Your task to perform on an android device: change the upload size in google photos Image 0: 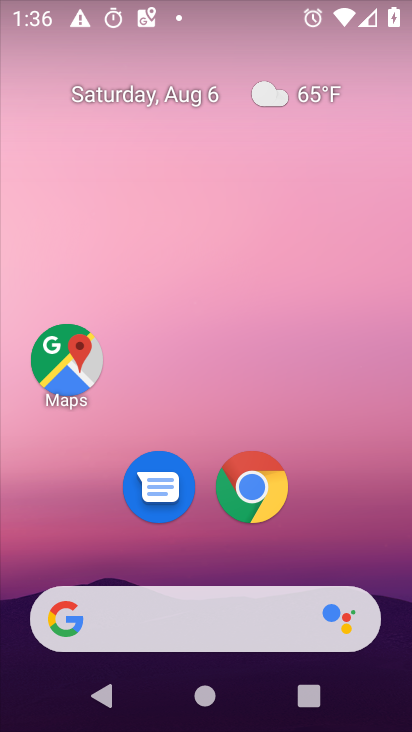
Step 0: drag from (219, 561) to (248, 22)
Your task to perform on an android device: change the upload size in google photos Image 1: 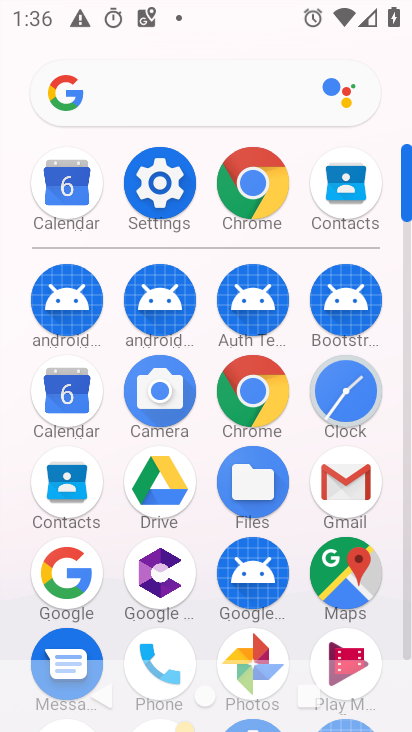
Step 1: click (262, 635)
Your task to perform on an android device: change the upload size in google photos Image 2: 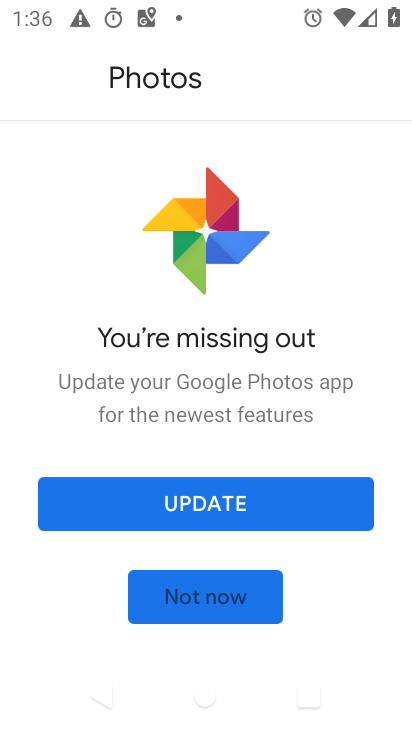
Step 2: click (202, 608)
Your task to perform on an android device: change the upload size in google photos Image 3: 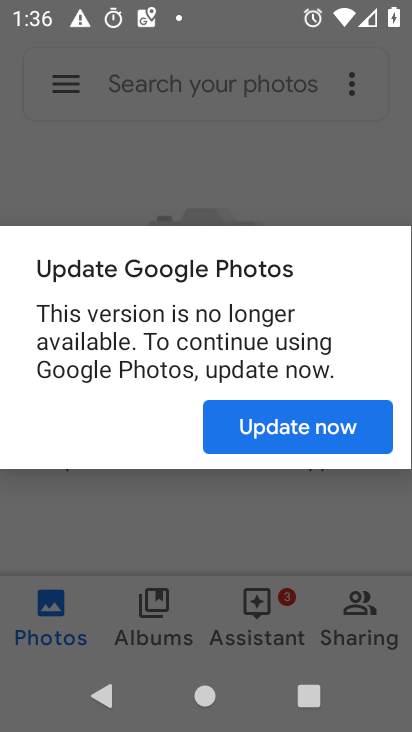
Step 3: click (301, 426)
Your task to perform on an android device: change the upload size in google photos Image 4: 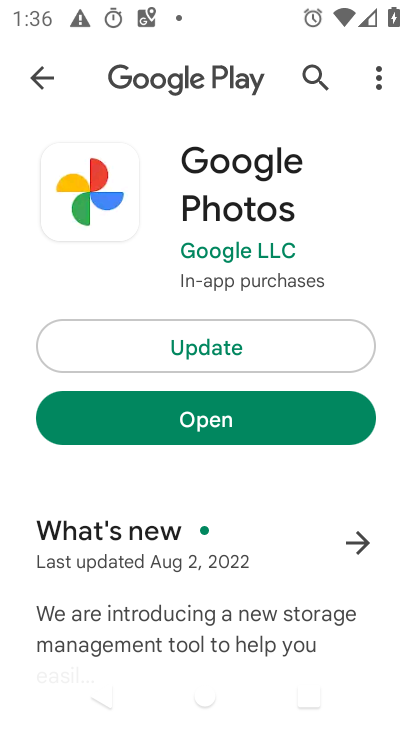
Step 4: click (192, 428)
Your task to perform on an android device: change the upload size in google photos Image 5: 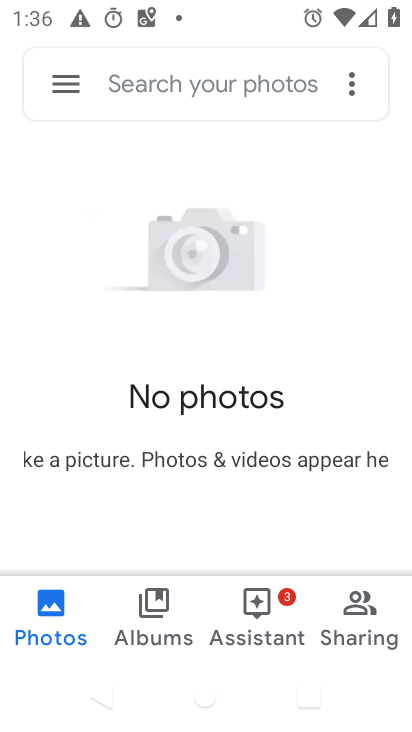
Step 5: click (56, 89)
Your task to perform on an android device: change the upload size in google photos Image 6: 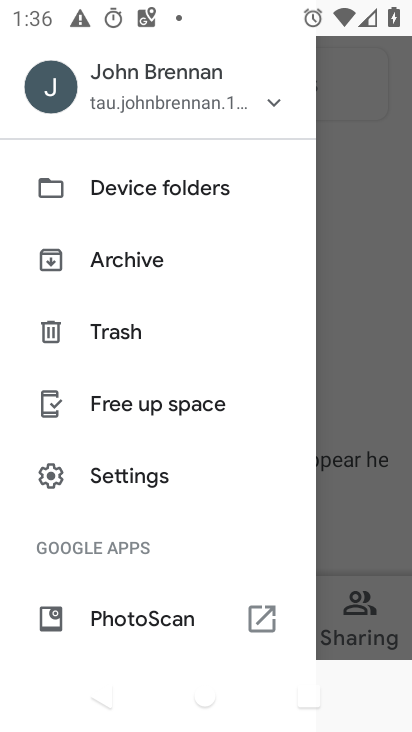
Step 6: click (141, 475)
Your task to perform on an android device: change the upload size in google photos Image 7: 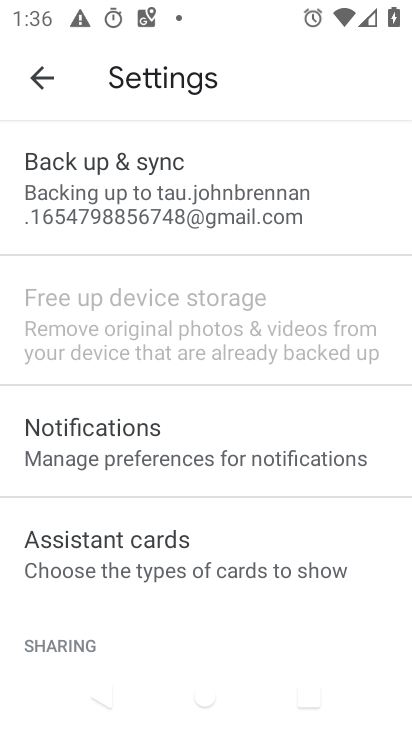
Step 7: click (159, 185)
Your task to perform on an android device: change the upload size in google photos Image 8: 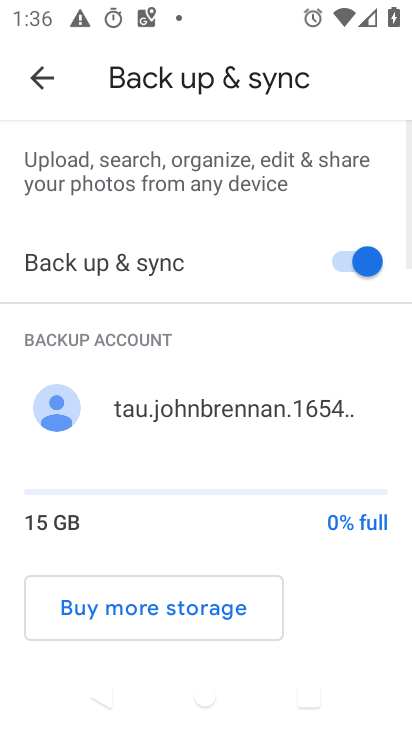
Step 8: drag from (148, 570) to (206, 166)
Your task to perform on an android device: change the upload size in google photos Image 9: 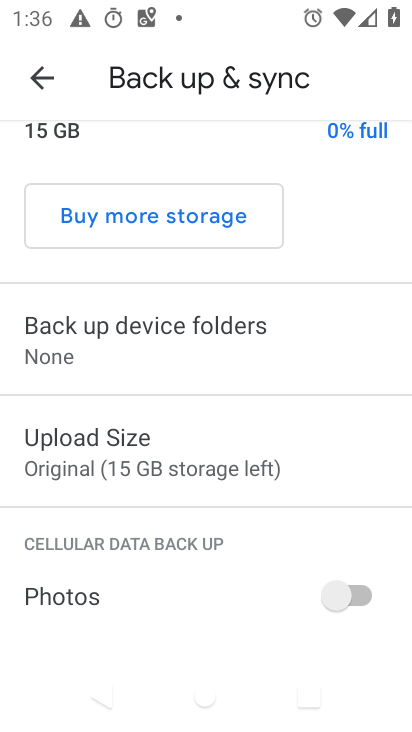
Step 9: click (178, 448)
Your task to perform on an android device: change the upload size in google photos Image 10: 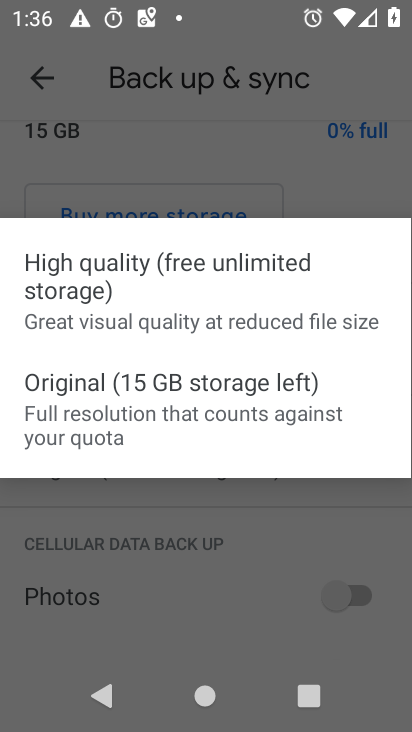
Step 10: click (187, 612)
Your task to perform on an android device: change the upload size in google photos Image 11: 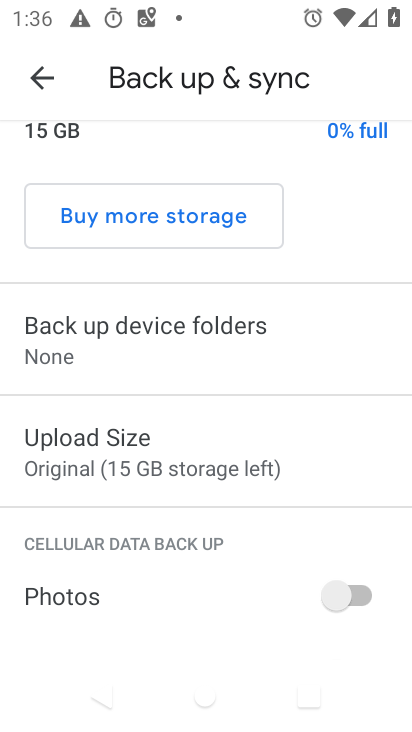
Step 11: click (171, 453)
Your task to perform on an android device: change the upload size in google photos Image 12: 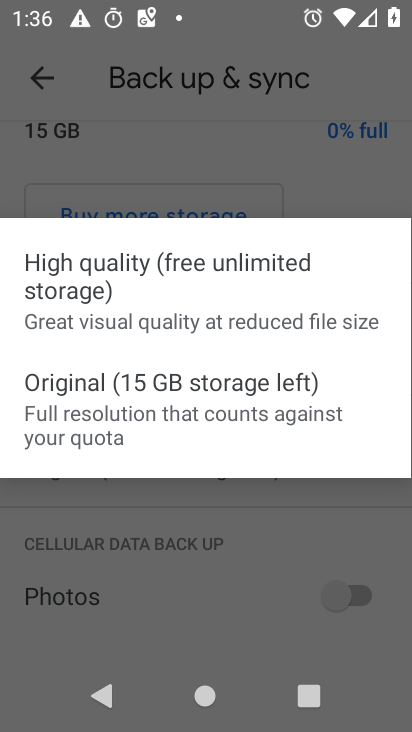
Step 12: click (119, 285)
Your task to perform on an android device: change the upload size in google photos Image 13: 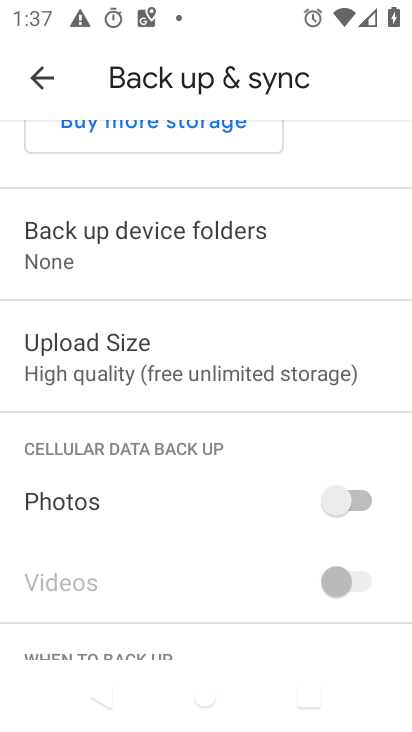
Step 13: task complete